Your task to perform on an android device: Go to network settings Image 0: 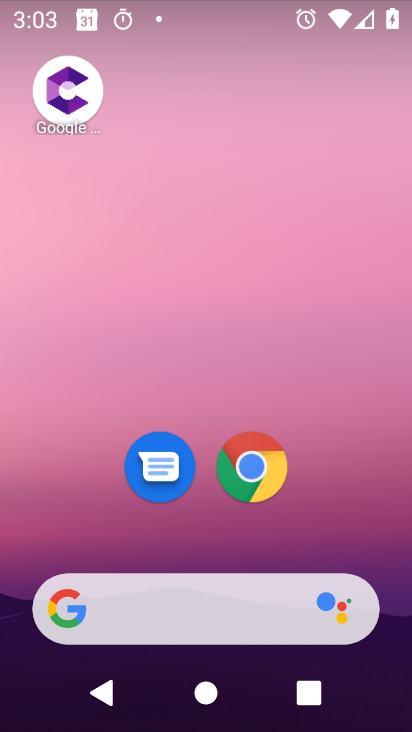
Step 0: drag from (340, 523) to (255, 29)
Your task to perform on an android device: Go to network settings Image 1: 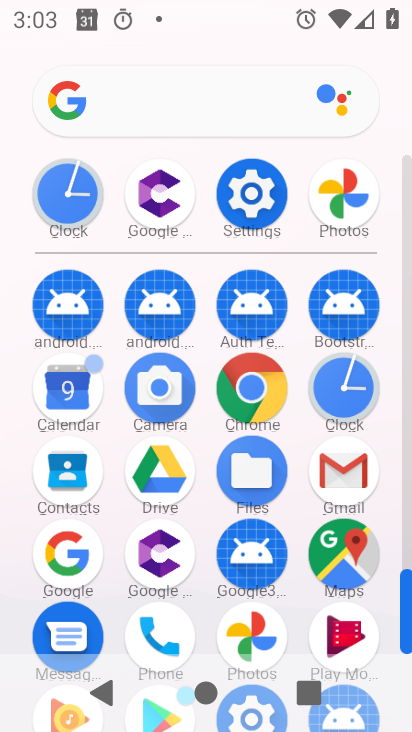
Step 1: click (236, 183)
Your task to perform on an android device: Go to network settings Image 2: 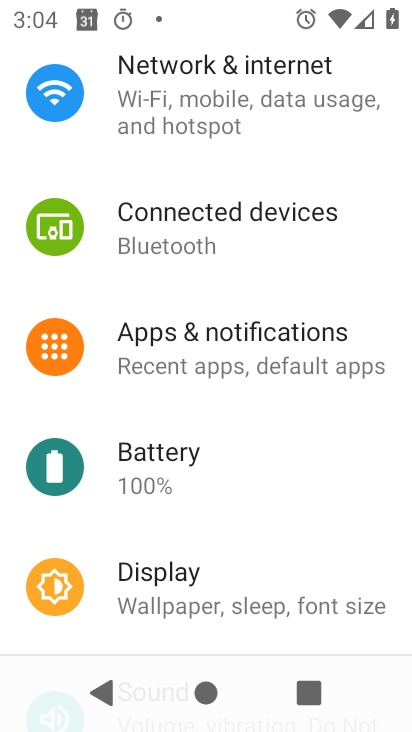
Step 2: click (206, 106)
Your task to perform on an android device: Go to network settings Image 3: 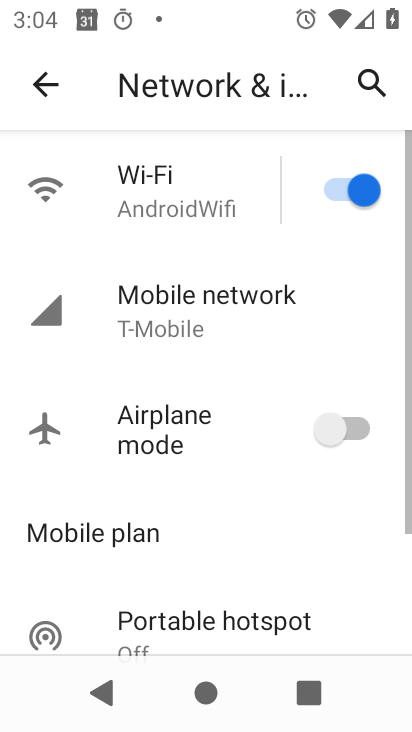
Step 3: task complete